Your task to perform on an android device: snooze an email in the gmail app Image 0: 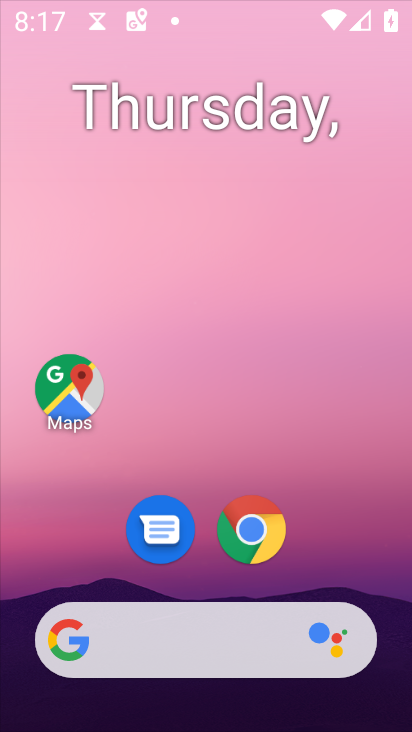
Step 0: press home button
Your task to perform on an android device: snooze an email in the gmail app Image 1: 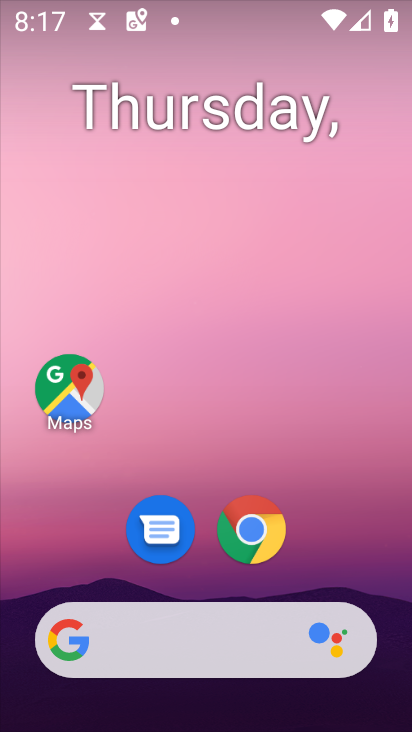
Step 1: drag from (205, 574) to (240, 74)
Your task to perform on an android device: snooze an email in the gmail app Image 2: 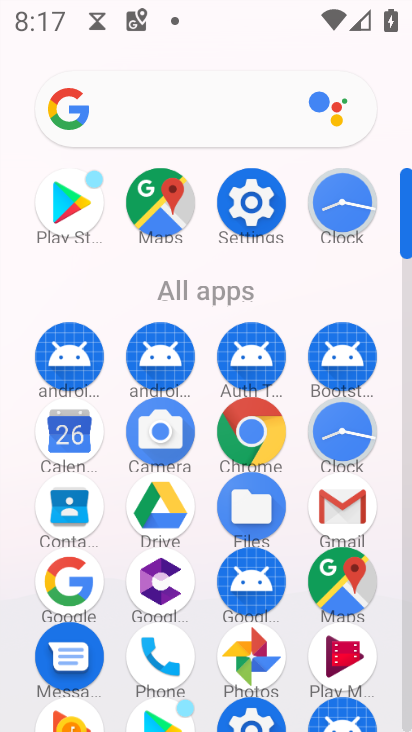
Step 2: click (341, 495)
Your task to perform on an android device: snooze an email in the gmail app Image 3: 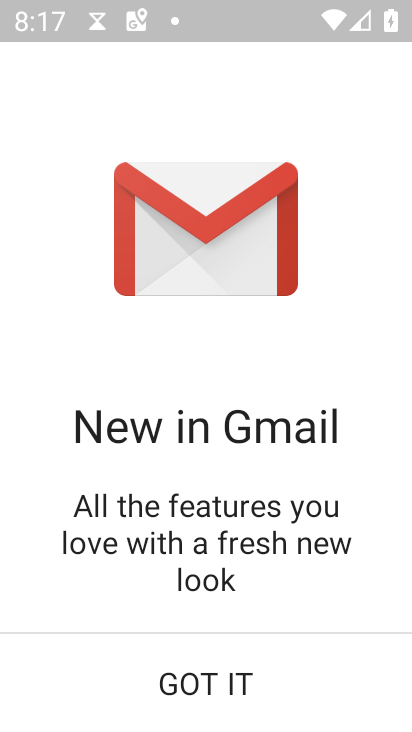
Step 3: click (219, 698)
Your task to perform on an android device: snooze an email in the gmail app Image 4: 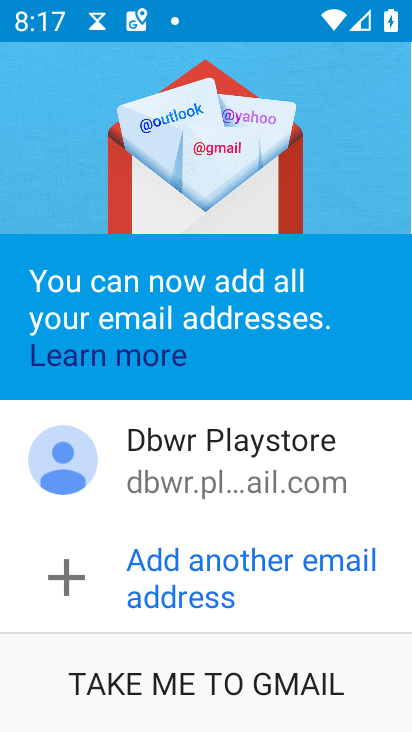
Step 4: click (199, 698)
Your task to perform on an android device: snooze an email in the gmail app Image 5: 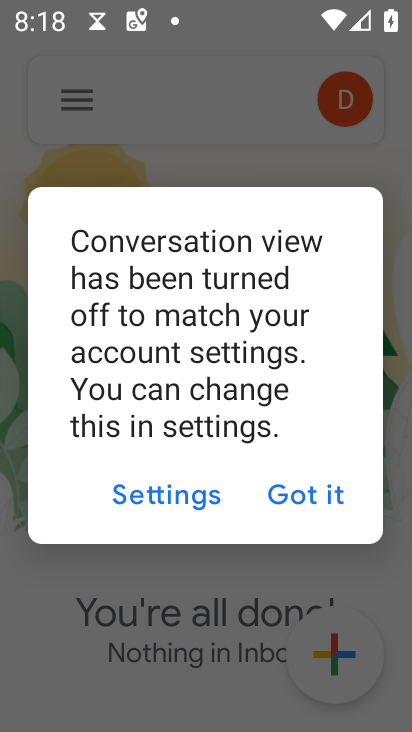
Step 5: click (312, 500)
Your task to perform on an android device: snooze an email in the gmail app Image 6: 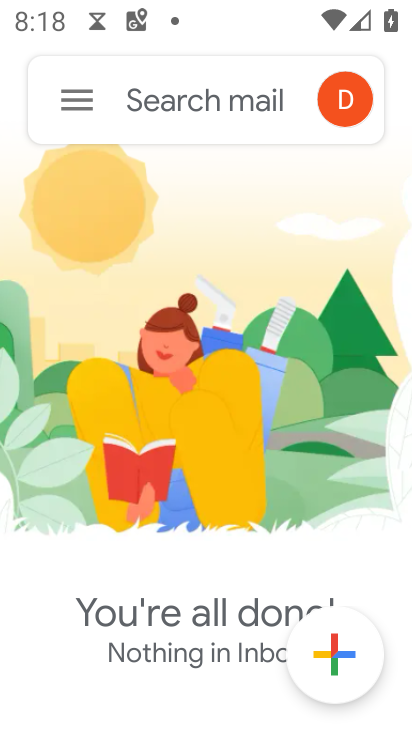
Step 6: click (79, 92)
Your task to perform on an android device: snooze an email in the gmail app Image 7: 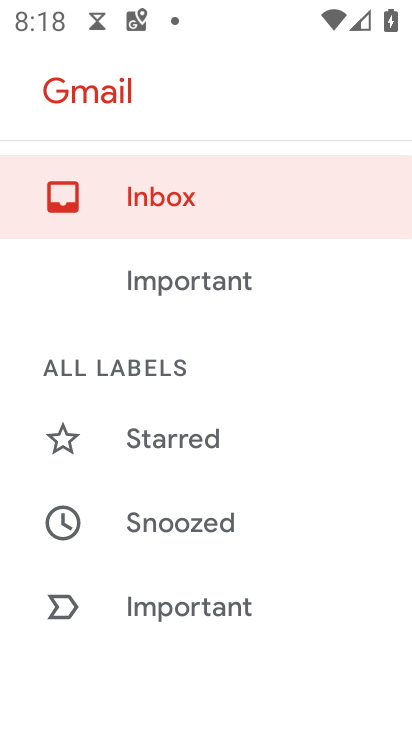
Step 7: task complete